Your task to perform on an android device: Search for seafood restaurants on Google Maps Image 0: 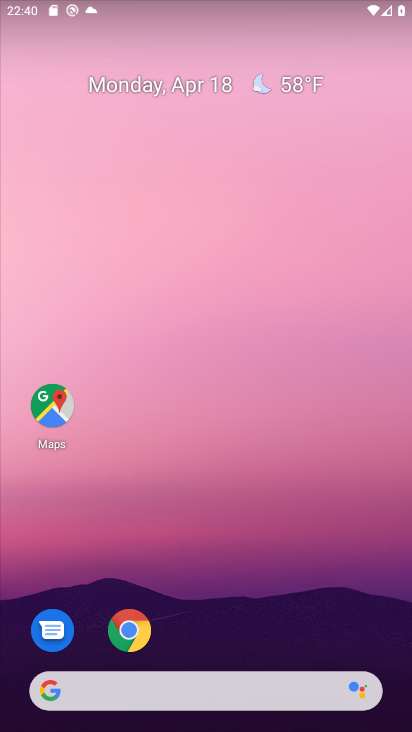
Step 0: drag from (218, 661) to (143, 48)
Your task to perform on an android device: Search for seafood restaurants on Google Maps Image 1: 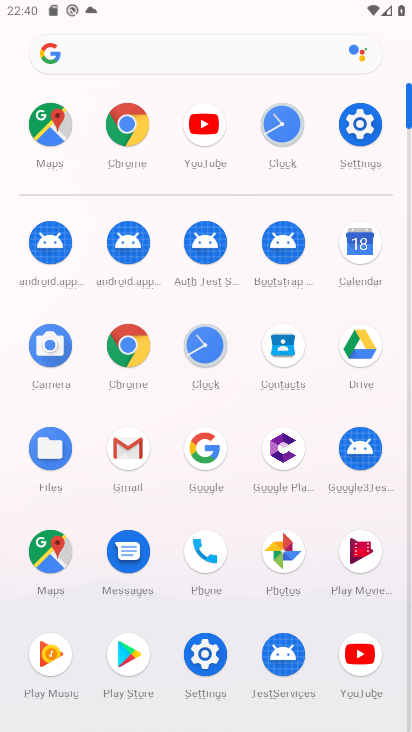
Step 1: drag from (272, 2) to (225, 702)
Your task to perform on an android device: Search for seafood restaurants on Google Maps Image 2: 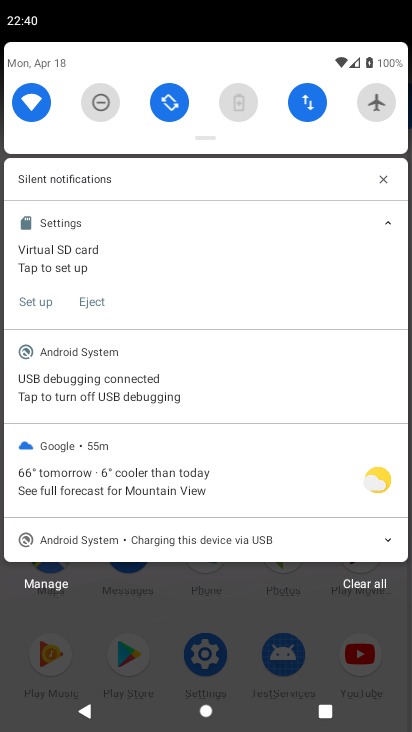
Step 2: click (101, 109)
Your task to perform on an android device: Search for seafood restaurants on Google Maps Image 3: 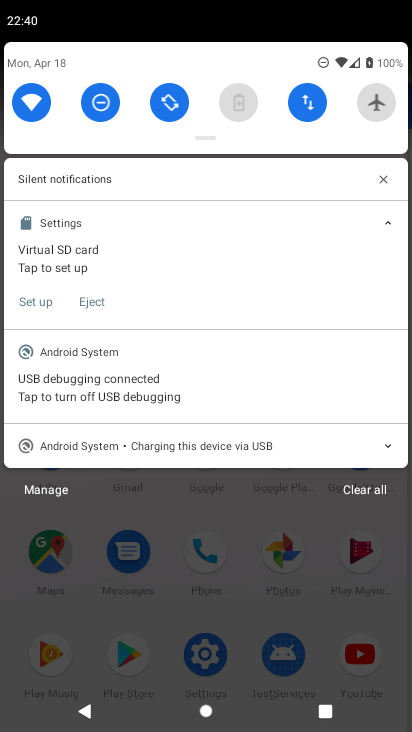
Step 3: task complete